Your task to perform on an android device: change text size in settings app Image 0: 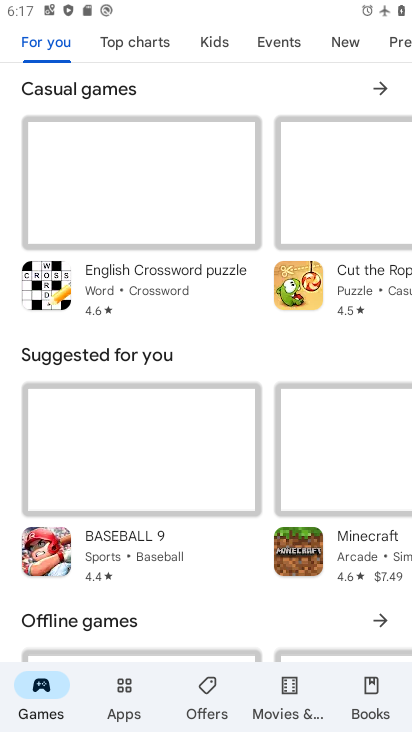
Step 0: press home button
Your task to perform on an android device: change text size in settings app Image 1: 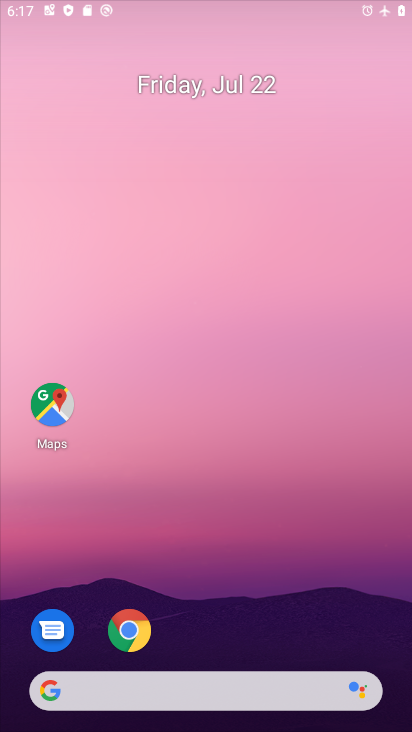
Step 1: drag from (185, 686) to (201, 144)
Your task to perform on an android device: change text size in settings app Image 2: 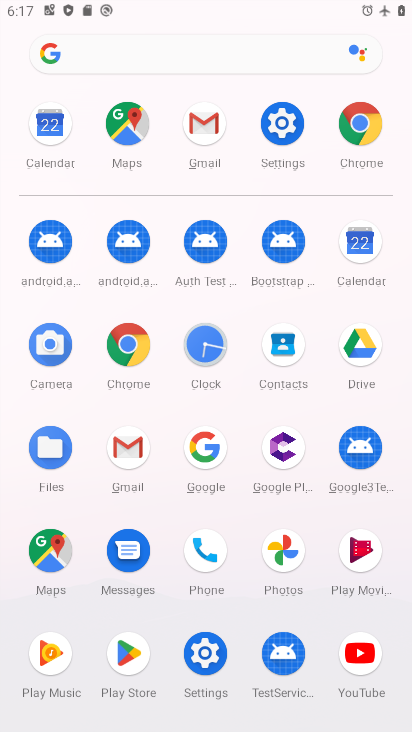
Step 2: click (283, 130)
Your task to perform on an android device: change text size in settings app Image 3: 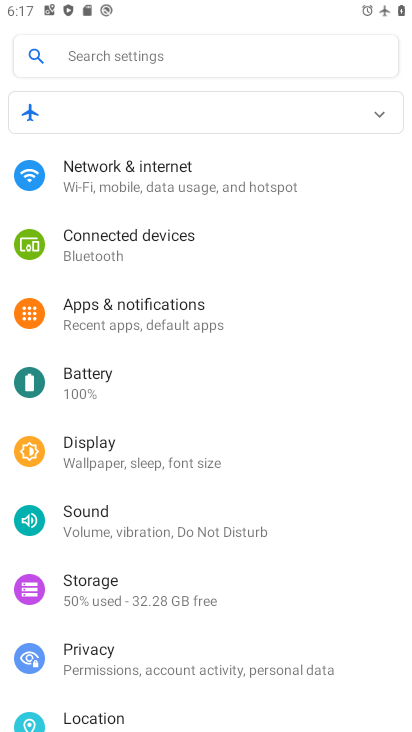
Step 3: drag from (160, 642) to (160, 149)
Your task to perform on an android device: change text size in settings app Image 4: 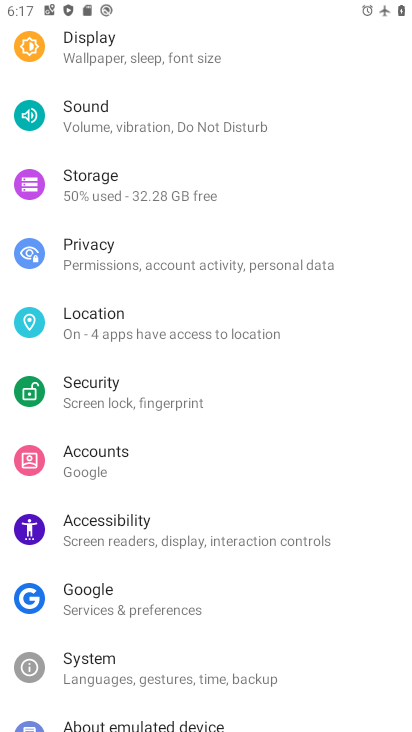
Step 4: drag from (125, 667) to (135, 244)
Your task to perform on an android device: change text size in settings app Image 5: 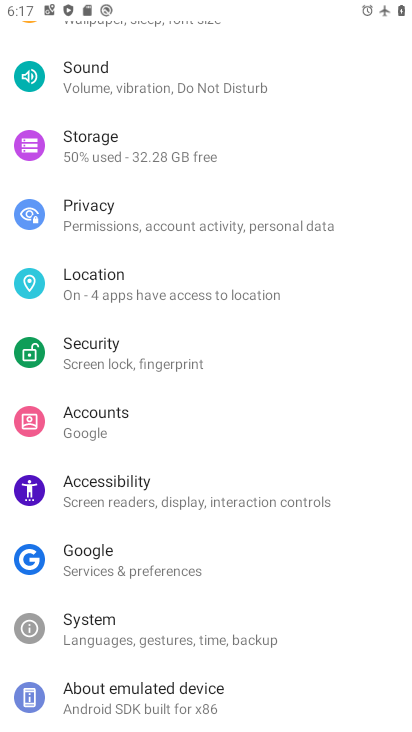
Step 5: click (150, 630)
Your task to perform on an android device: change text size in settings app Image 6: 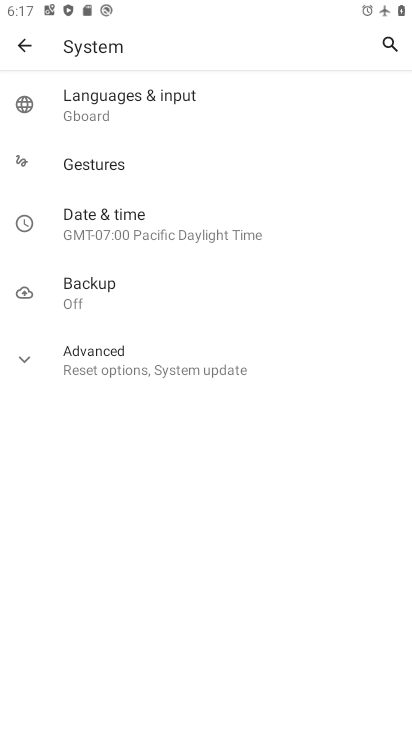
Step 6: press back button
Your task to perform on an android device: change text size in settings app Image 7: 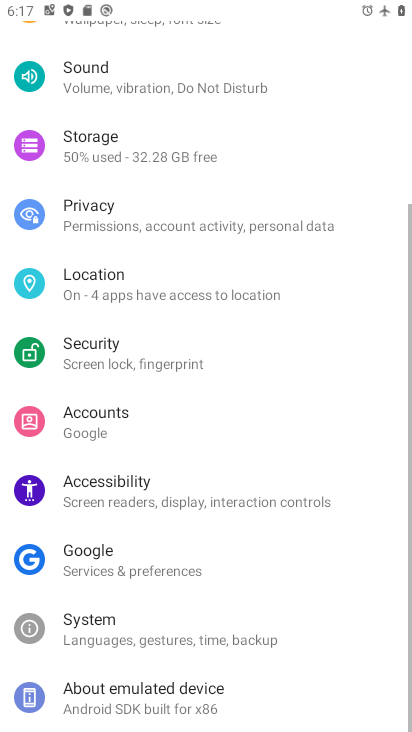
Step 7: click (108, 484)
Your task to perform on an android device: change text size in settings app Image 8: 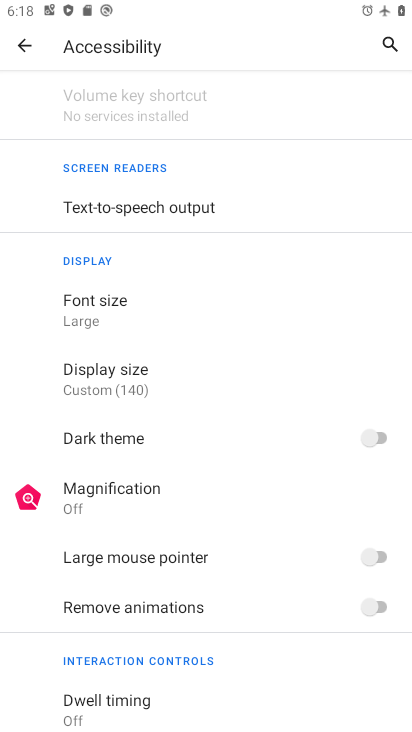
Step 8: click (127, 318)
Your task to perform on an android device: change text size in settings app Image 9: 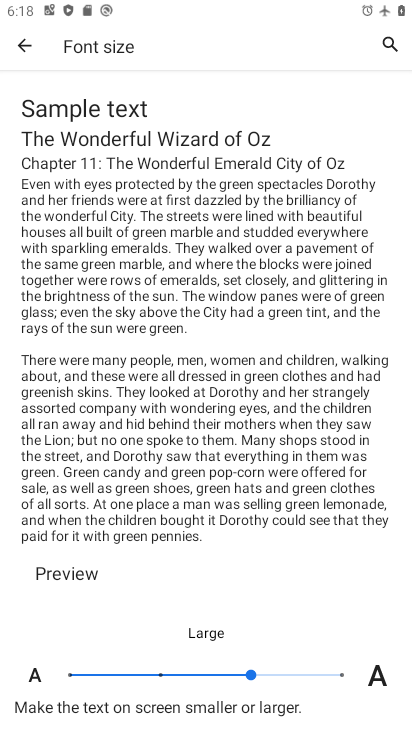
Step 9: click (334, 675)
Your task to perform on an android device: change text size in settings app Image 10: 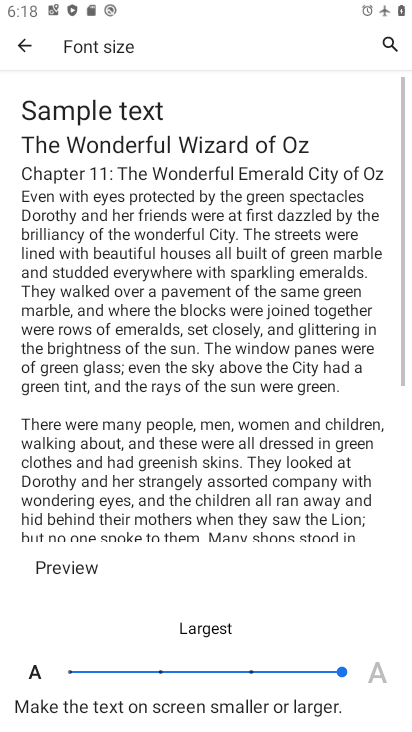
Step 10: task complete